Your task to perform on an android device: turn smart compose on in the gmail app Image 0: 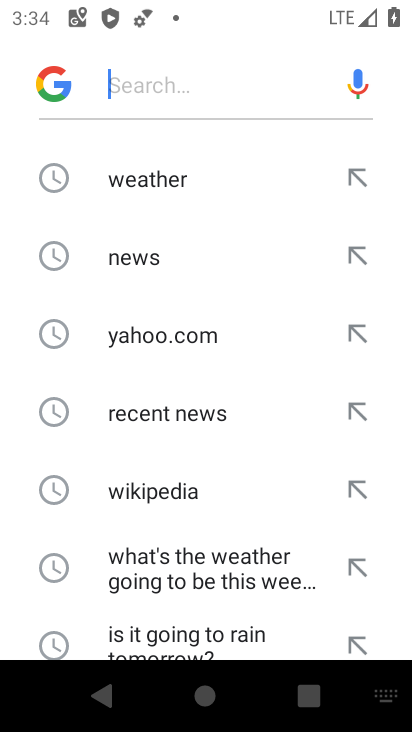
Step 0: press home button
Your task to perform on an android device: turn smart compose on in the gmail app Image 1: 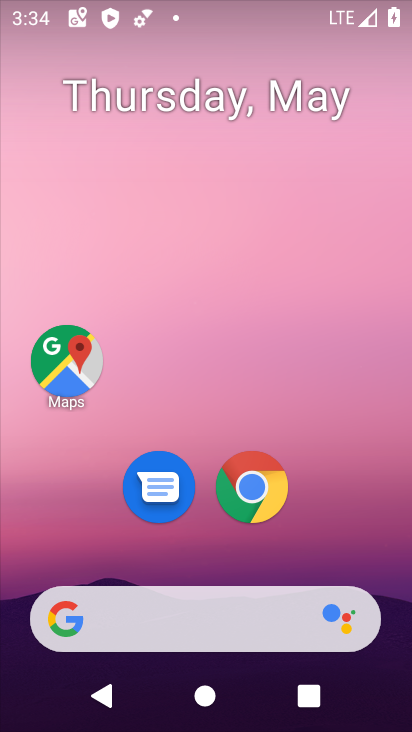
Step 1: drag from (202, 659) to (265, 216)
Your task to perform on an android device: turn smart compose on in the gmail app Image 2: 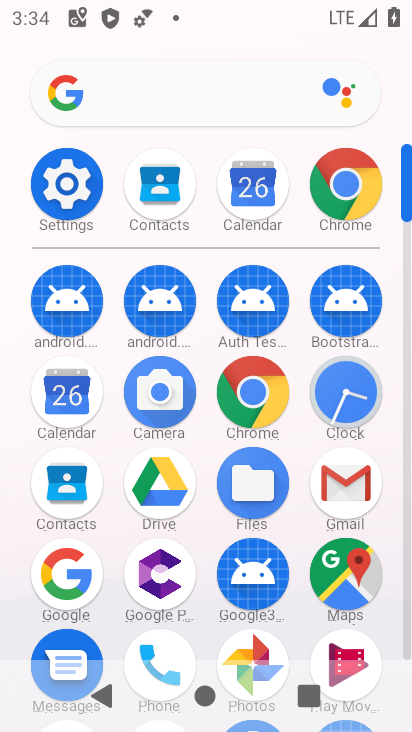
Step 2: click (348, 492)
Your task to perform on an android device: turn smart compose on in the gmail app Image 3: 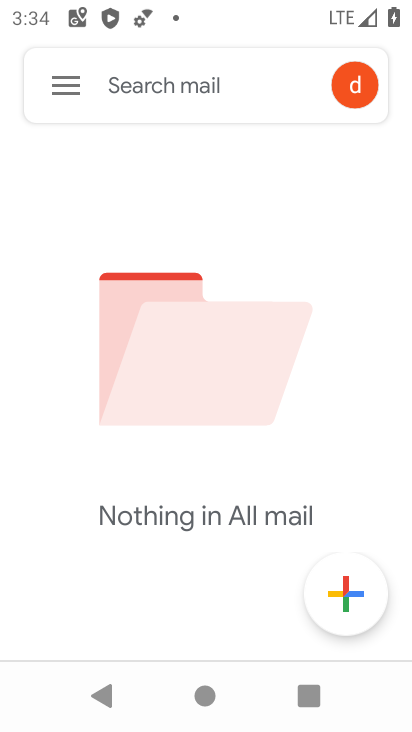
Step 3: click (62, 84)
Your task to perform on an android device: turn smart compose on in the gmail app Image 4: 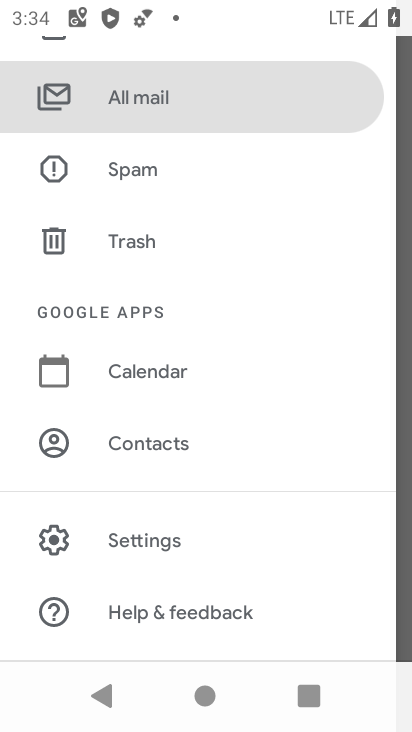
Step 4: click (218, 544)
Your task to perform on an android device: turn smart compose on in the gmail app Image 5: 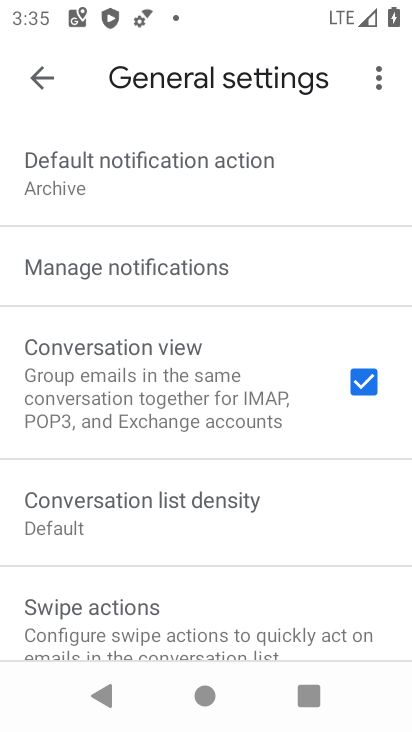
Step 5: click (42, 82)
Your task to perform on an android device: turn smart compose on in the gmail app Image 6: 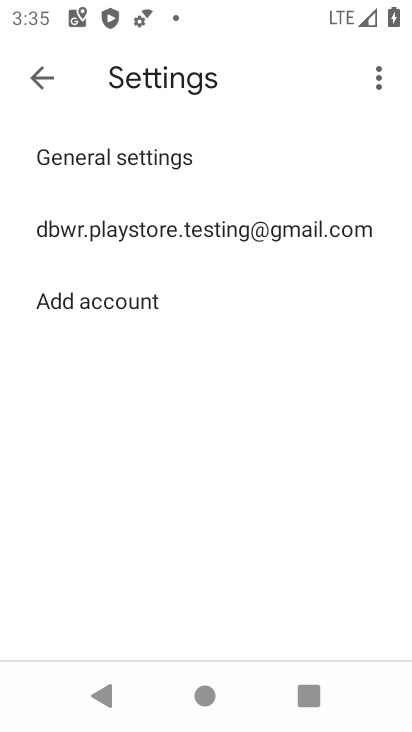
Step 6: click (225, 237)
Your task to perform on an android device: turn smart compose on in the gmail app Image 7: 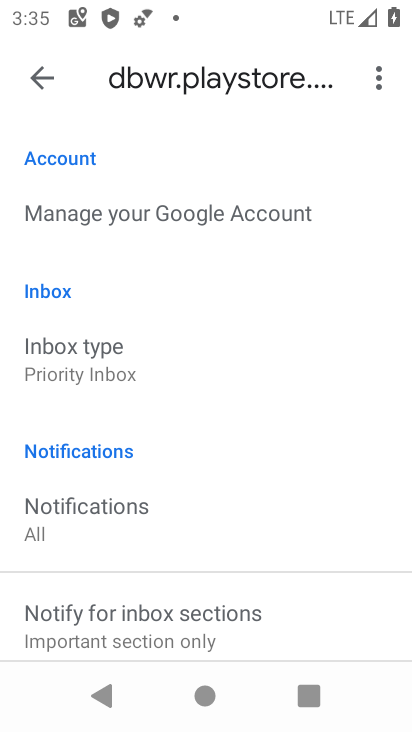
Step 7: task complete